Your task to perform on an android device: Look up the best rated hair dryer on Walmart. Image 0: 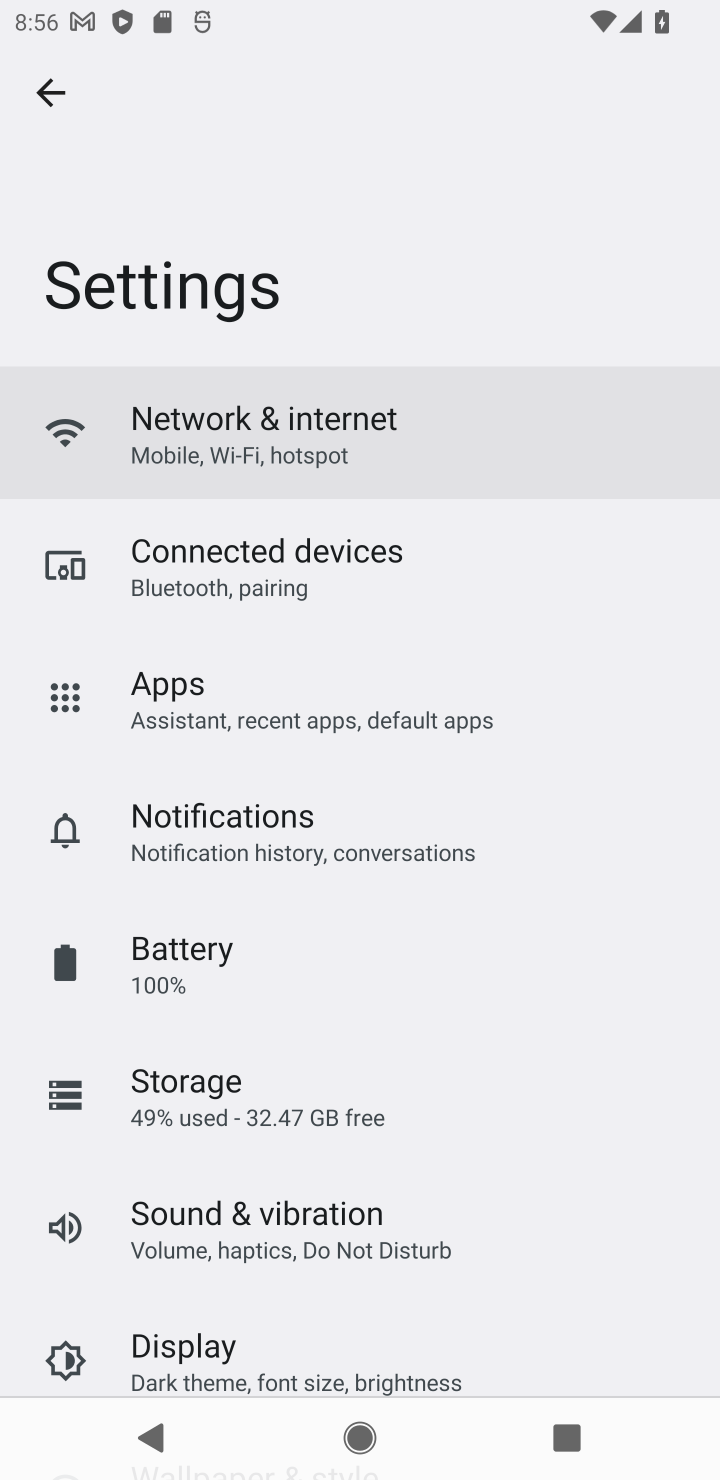
Step 0: press home button
Your task to perform on an android device: Look up the best rated hair dryer on Walmart. Image 1: 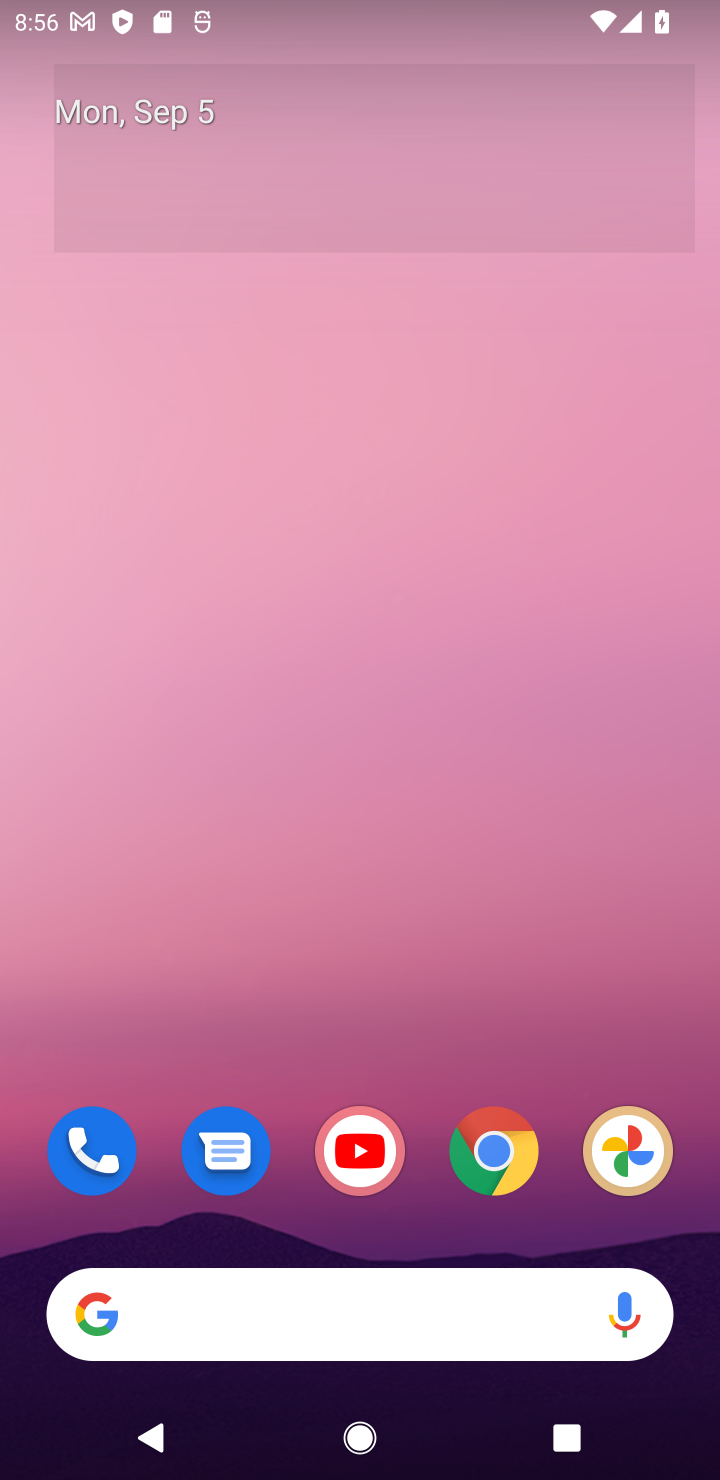
Step 1: drag from (364, 1119) to (593, 18)
Your task to perform on an android device: Look up the best rated hair dryer on Walmart. Image 2: 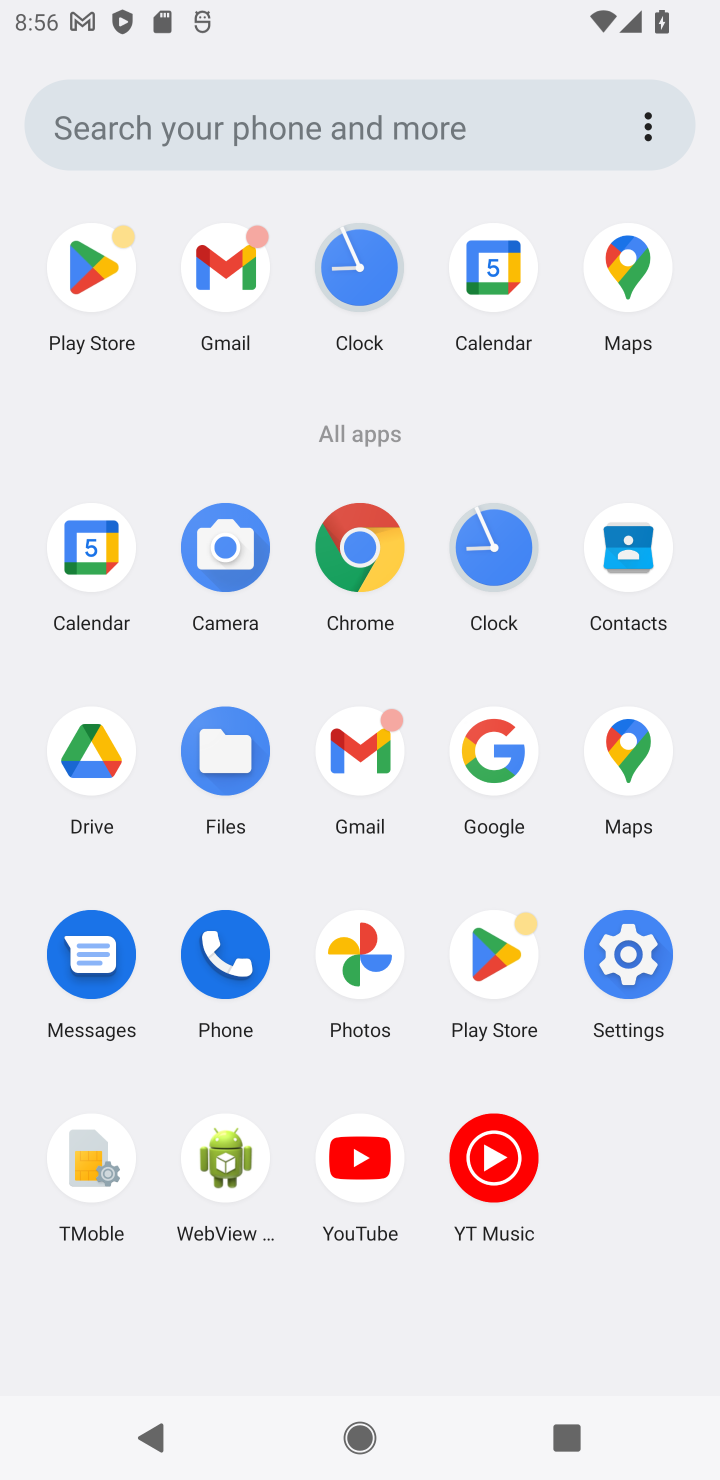
Step 2: click (330, 542)
Your task to perform on an android device: Look up the best rated hair dryer on Walmart. Image 3: 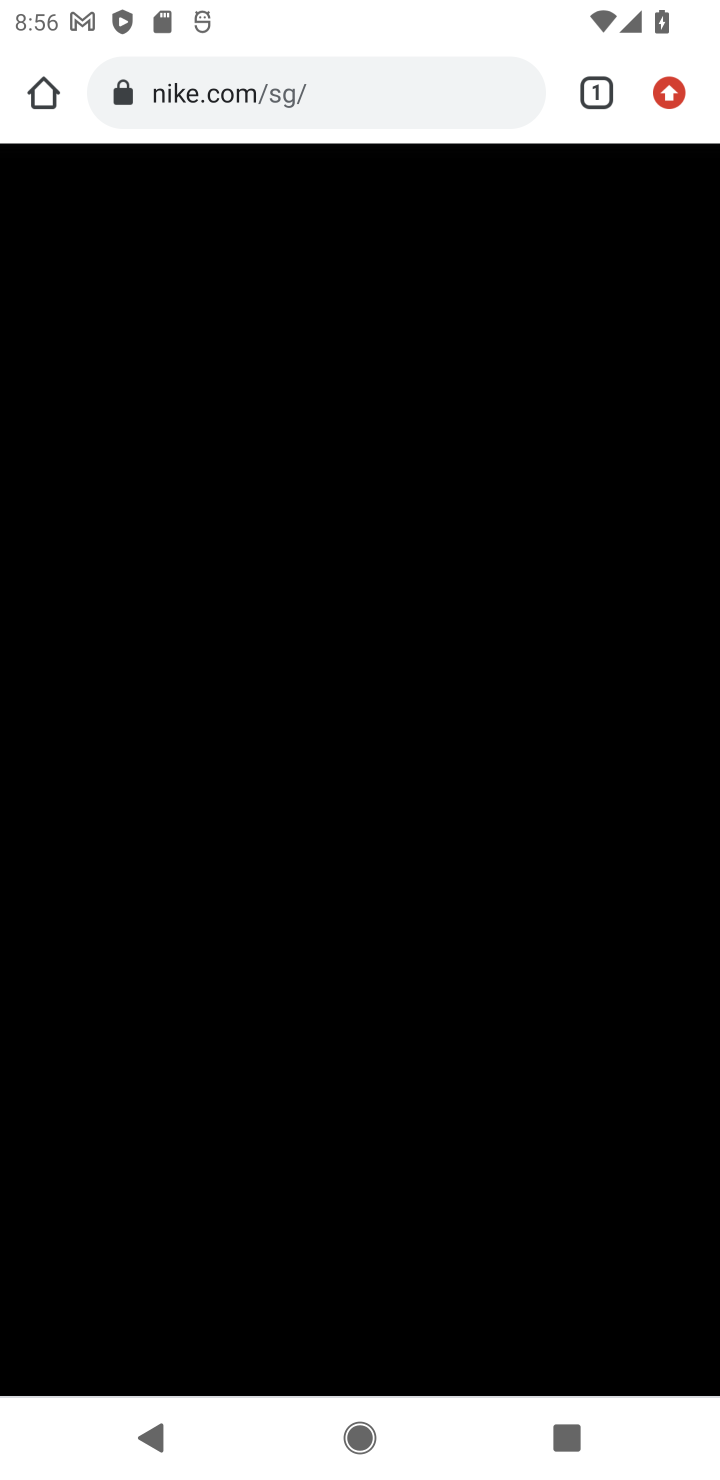
Step 3: click (427, 70)
Your task to perform on an android device: Look up the best rated hair dryer on Walmart. Image 4: 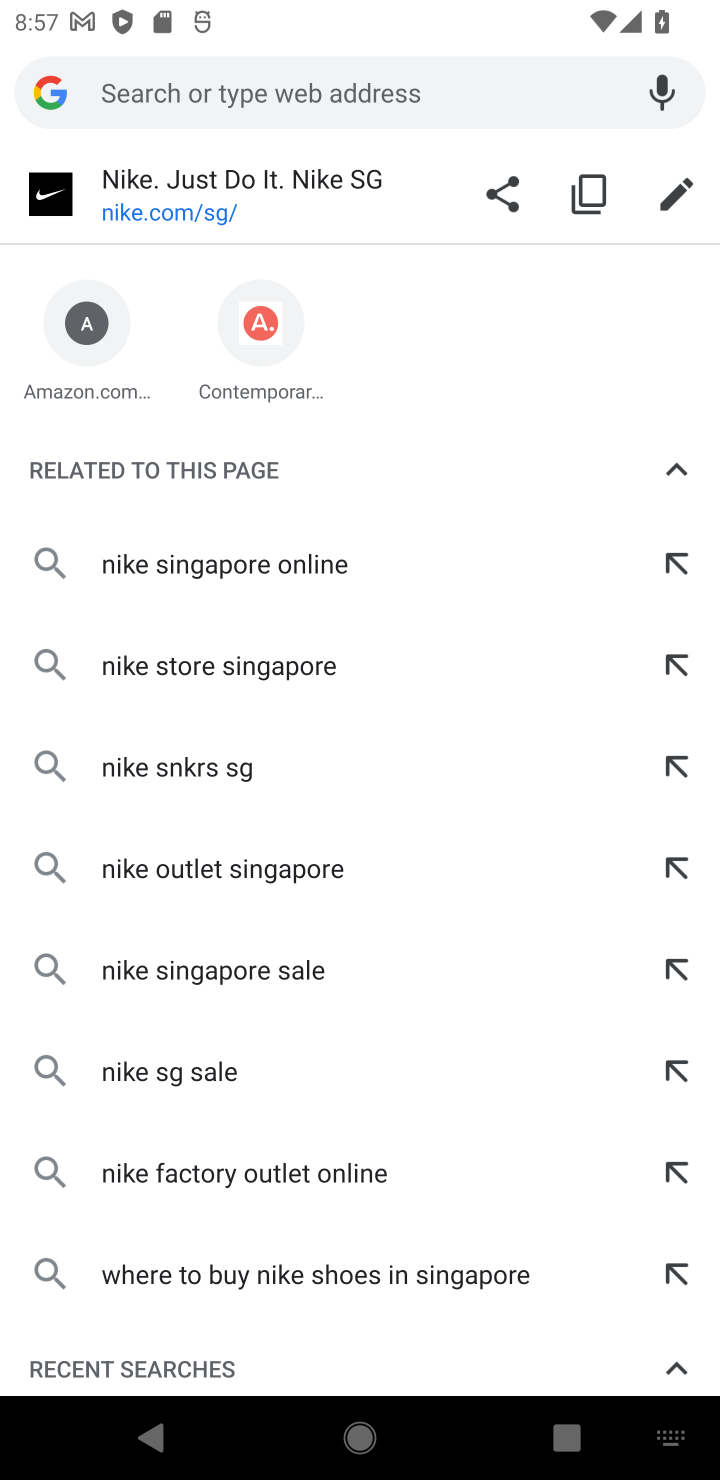
Step 4: press enter
Your task to perform on an android device: Look up the best rated hair dryer on Walmart. Image 5: 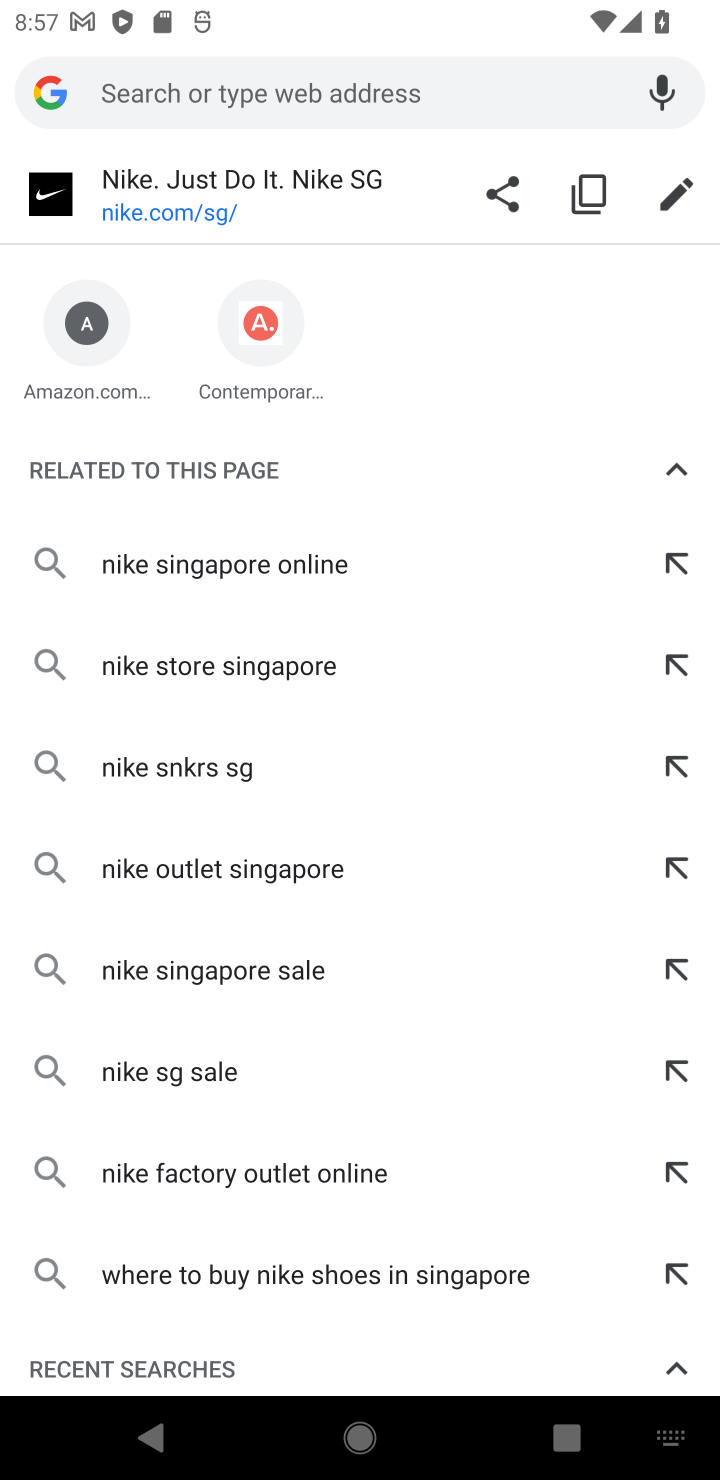
Step 5: type "Walmart"
Your task to perform on an android device: Look up the best rated hair dryer on Walmart. Image 6: 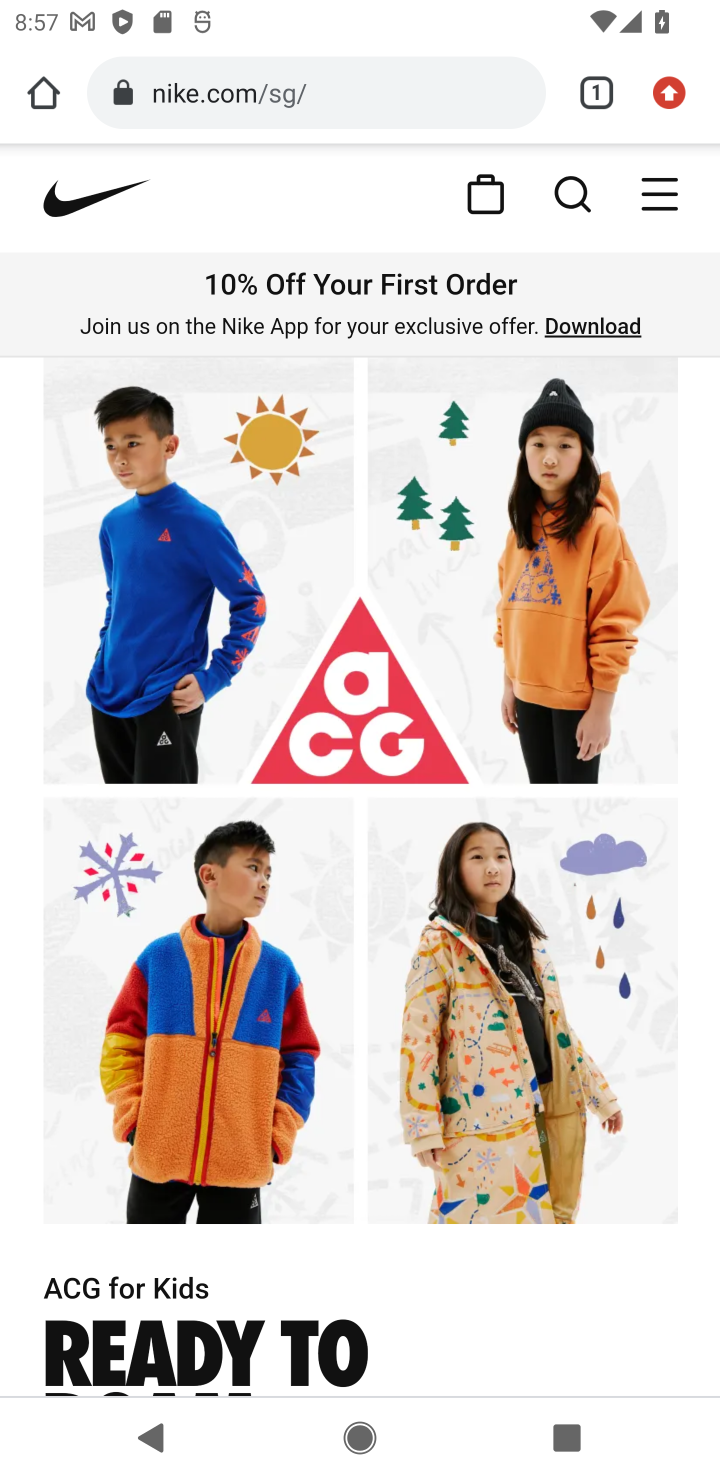
Step 6: click (543, 190)
Your task to perform on an android device: Look up the best rated hair dryer on Walmart. Image 7: 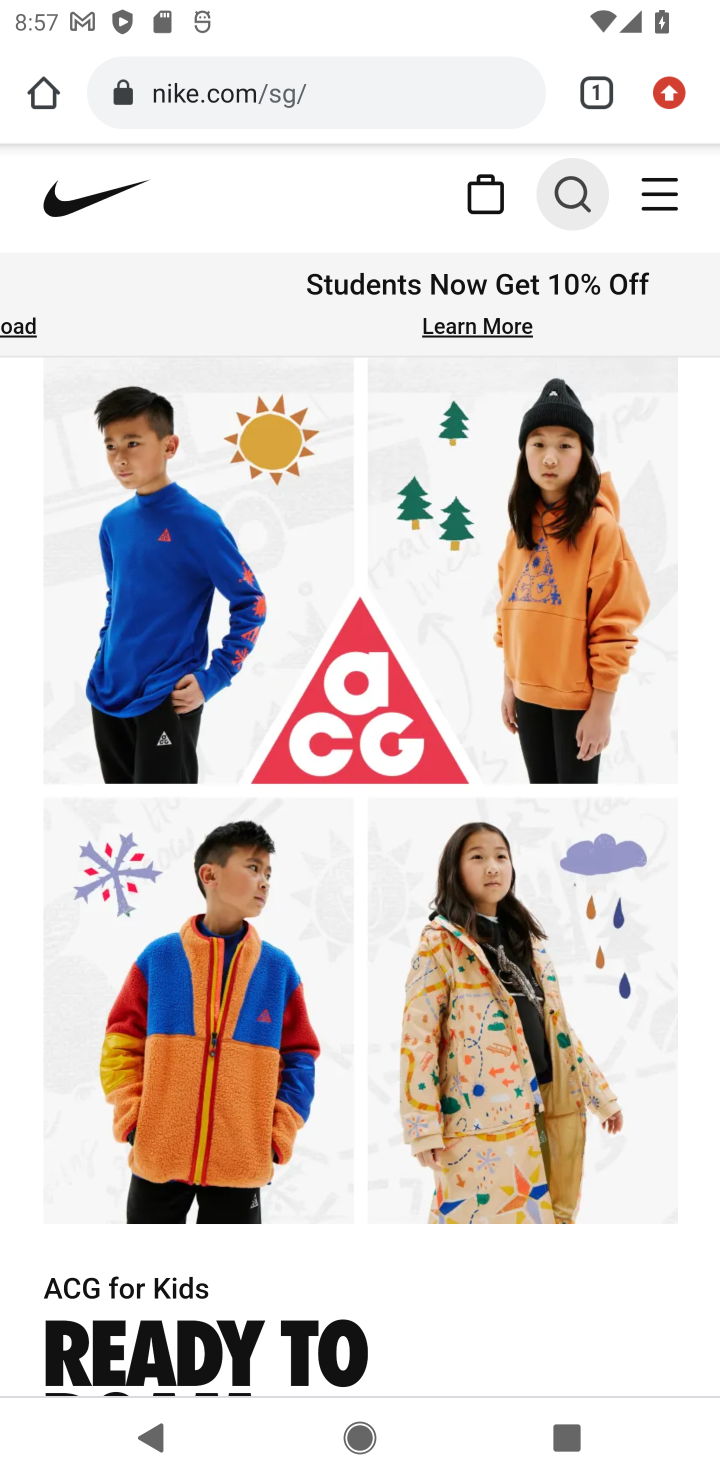
Step 7: click (575, 217)
Your task to perform on an android device: Look up the best rated hair dryer on Walmart. Image 8: 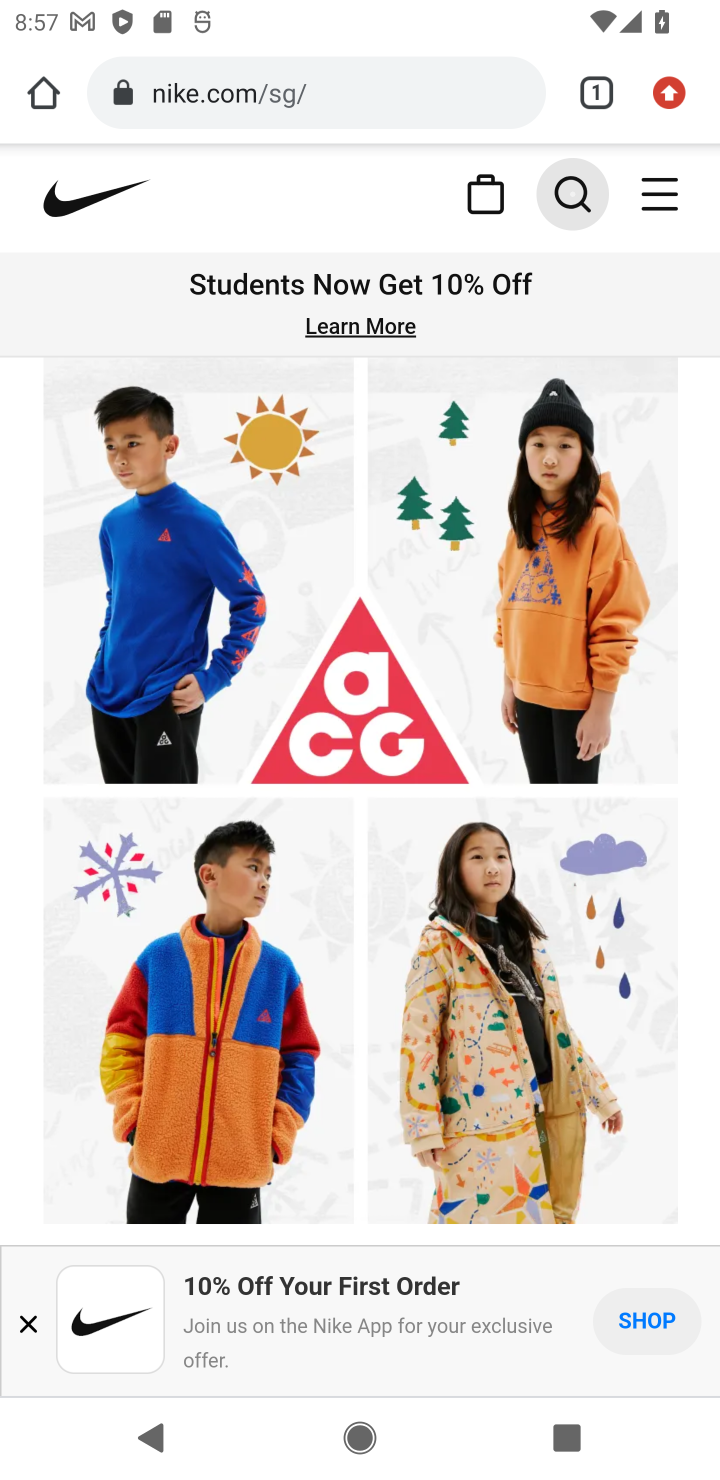
Step 8: click (576, 207)
Your task to perform on an android device: Look up the best rated hair dryer on Walmart. Image 9: 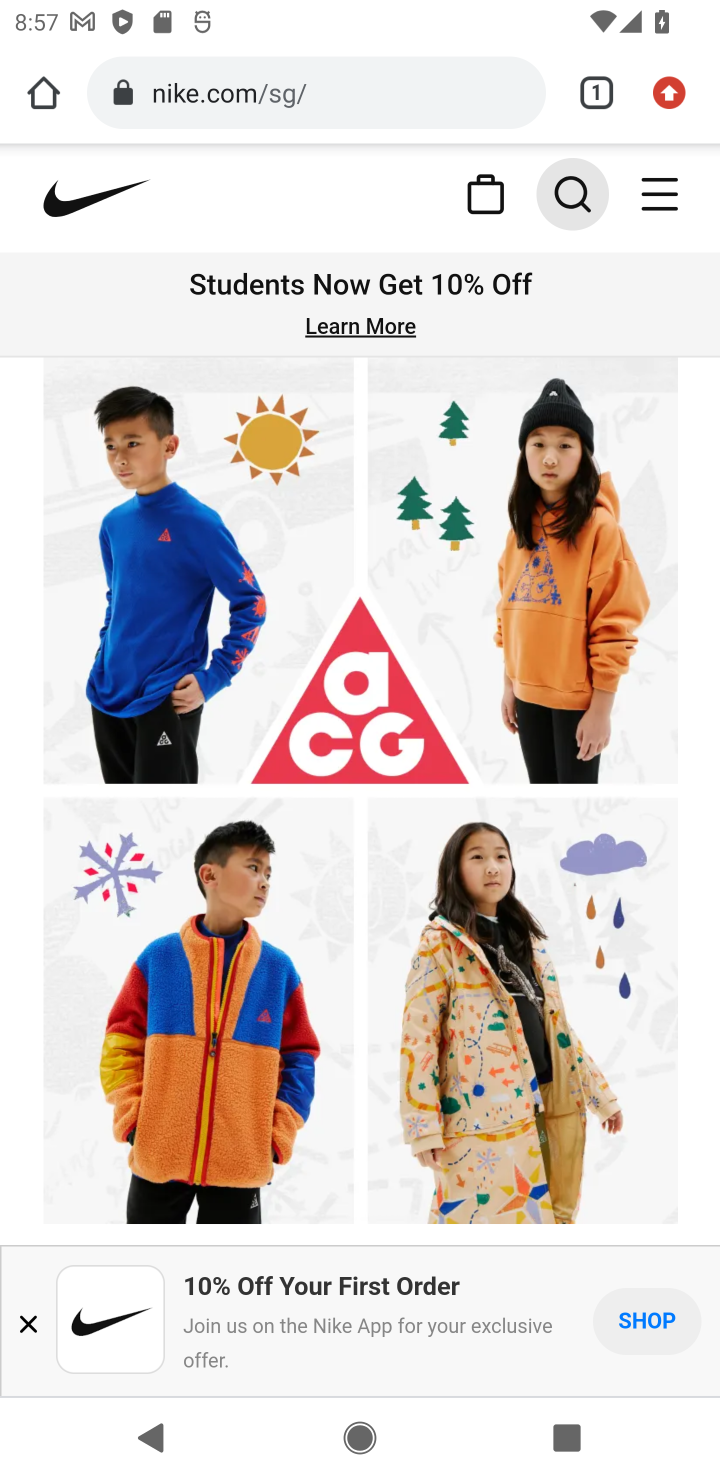
Step 9: click (578, 201)
Your task to perform on an android device: Look up the best rated hair dryer on Walmart. Image 10: 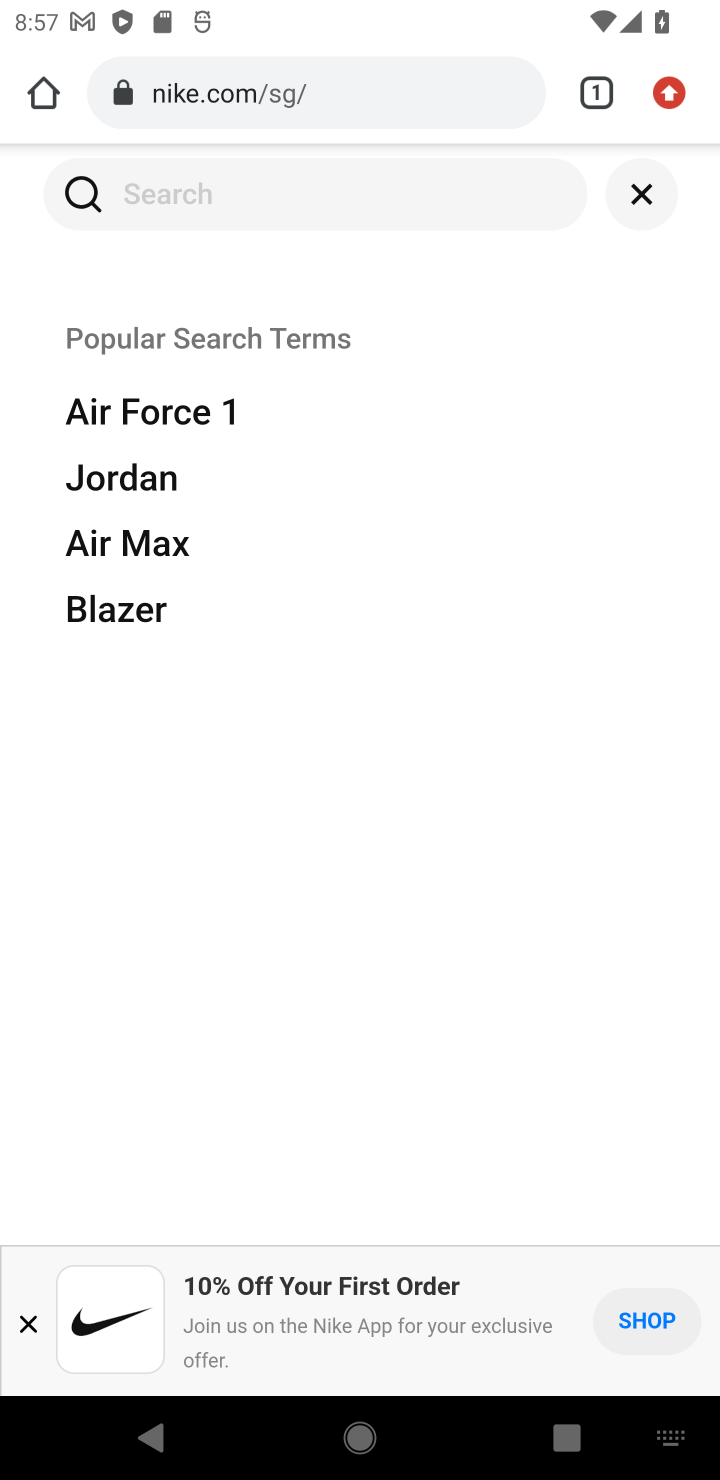
Step 10: type "best rated hair dryer"
Your task to perform on an android device: Look up the best rated hair dryer on Walmart. Image 11: 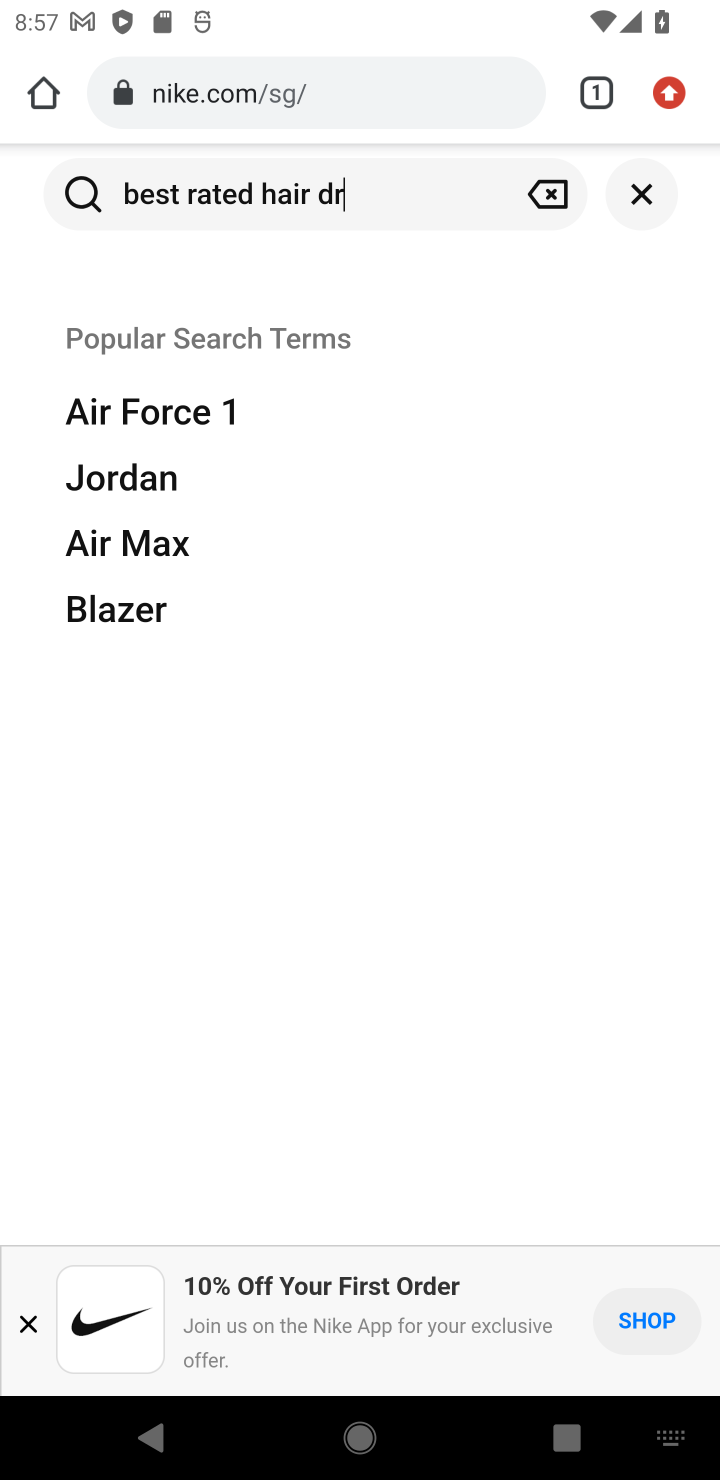
Step 11: press enter
Your task to perform on an android device: Look up the best rated hair dryer on Walmart. Image 12: 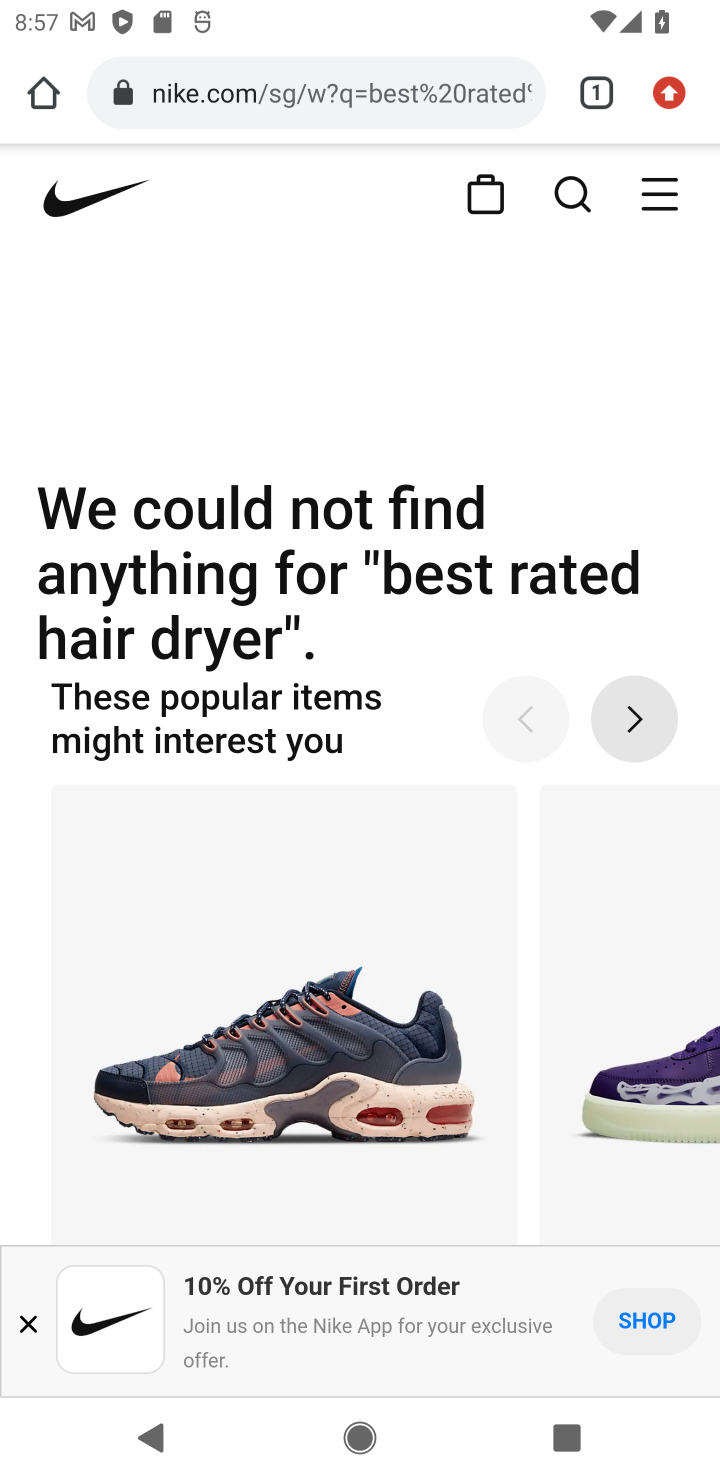
Step 12: task complete